Your task to perform on an android device: change the clock style Image 0: 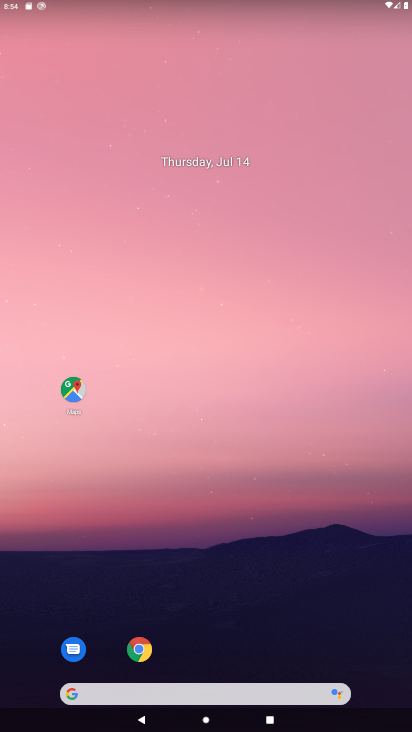
Step 0: drag from (214, 661) to (233, 32)
Your task to perform on an android device: change the clock style Image 1: 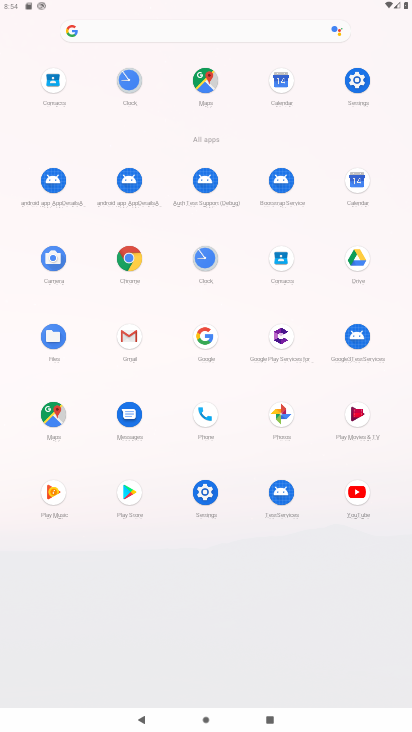
Step 1: click (199, 256)
Your task to perform on an android device: change the clock style Image 2: 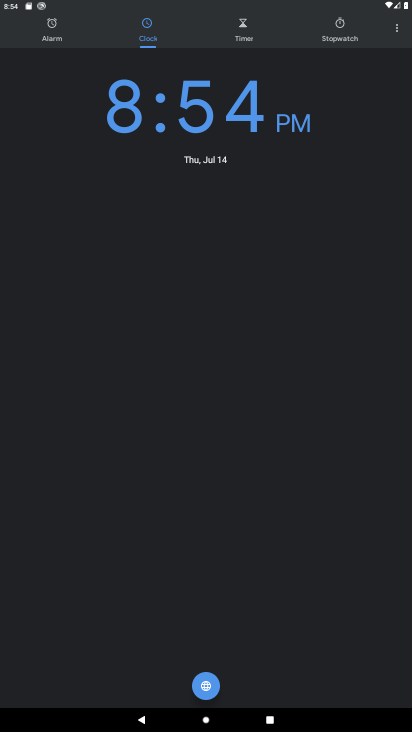
Step 2: click (394, 39)
Your task to perform on an android device: change the clock style Image 3: 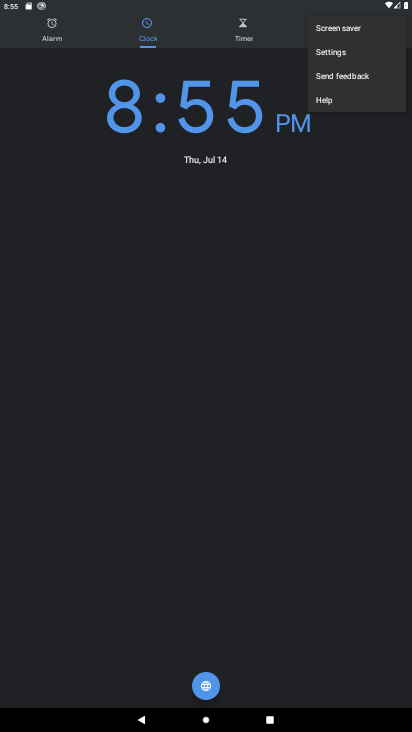
Step 3: click (338, 52)
Your task to perform on an android device: change the clock style Image 4: 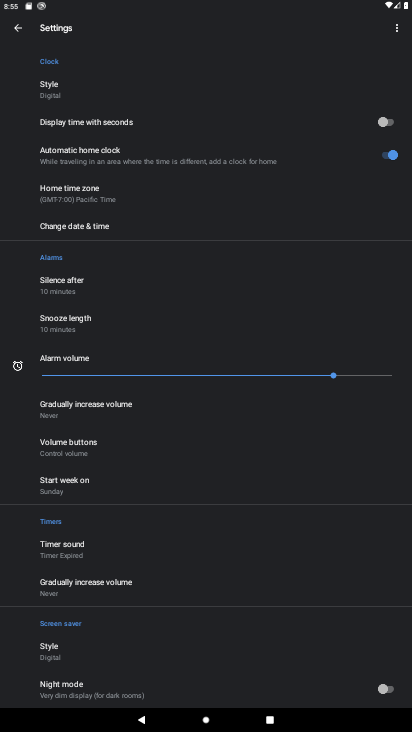
Step 4: click (58, 95)
Your task to perform on an android device: change the clock style Image 5: 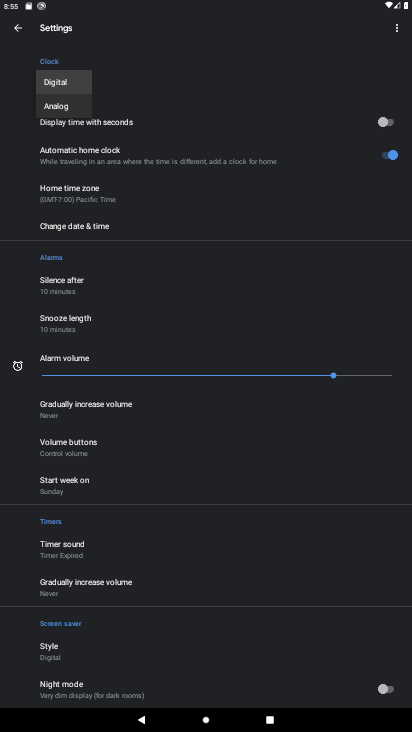
Step 5: click (64, 109)
Your task to perform on an android device: change the clock style Image 6: 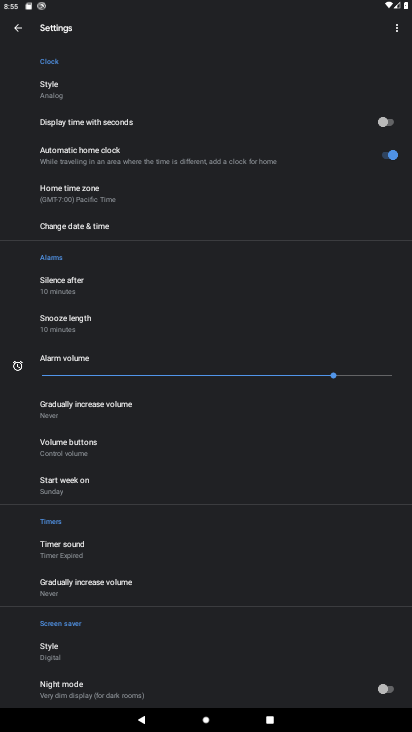
Step 6: task complete